Your task to perform on an android device: Go to ESPN.com Image 0: 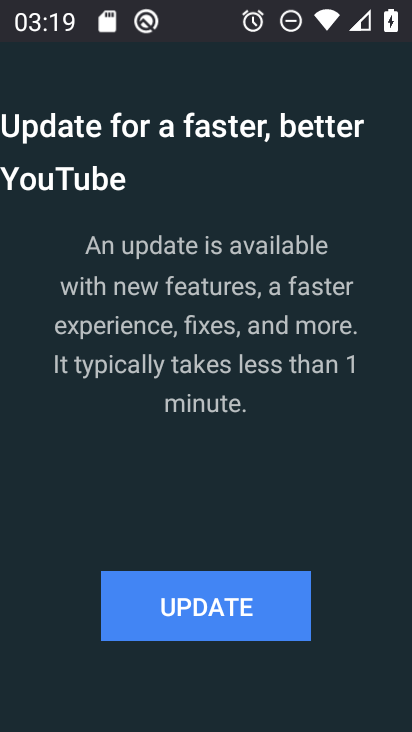
Step 0: click (215, 610)
Your task to perform on an android device: Go to ESPN.com Image 1: 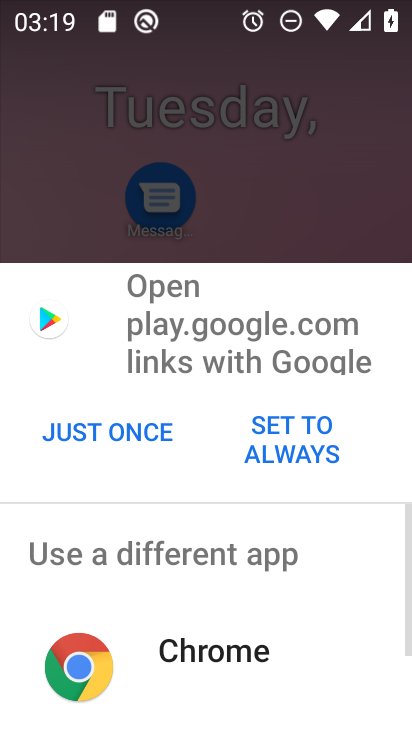
Step 1: click (321, 207)
Your task to perform on an android device: Go to ESPN.com Image 2: 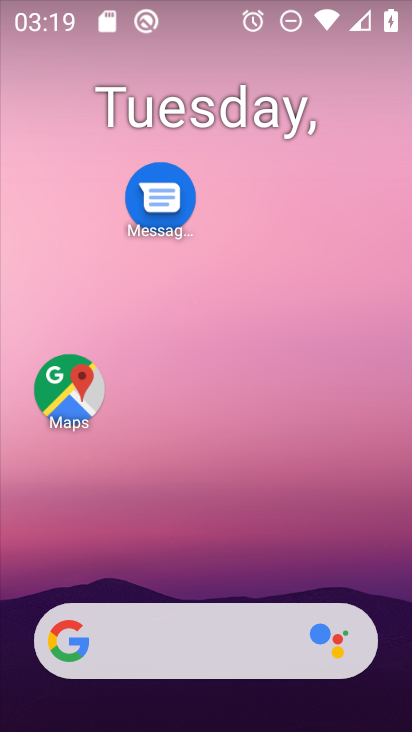
Step 2: drag from (203, 577) to (283, 113)
Your task to perform on an android device: Go to ESPN.com Image 3: 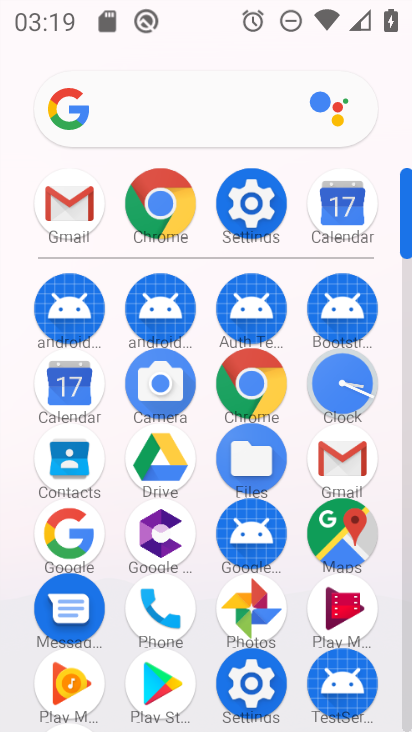
Step 3: click (244, 395)
Your task to perform on an android device: Go to ESPN.com Image 4: 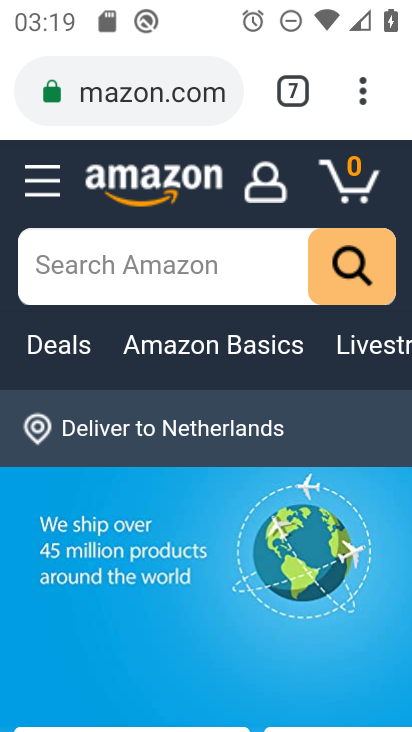
Step 4: click (180, 276)
Your task to perform on an android device: Go to ESPN.com Image 5: 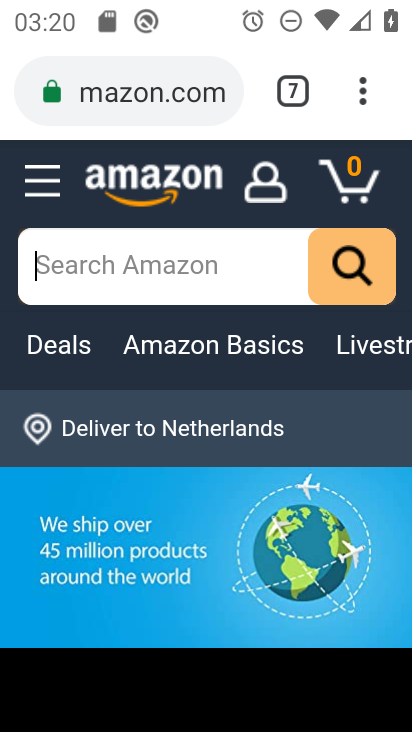
Step 5: type "ESPN.com"
Your task to perform on an android device: Go to ESPN.com Image 6: 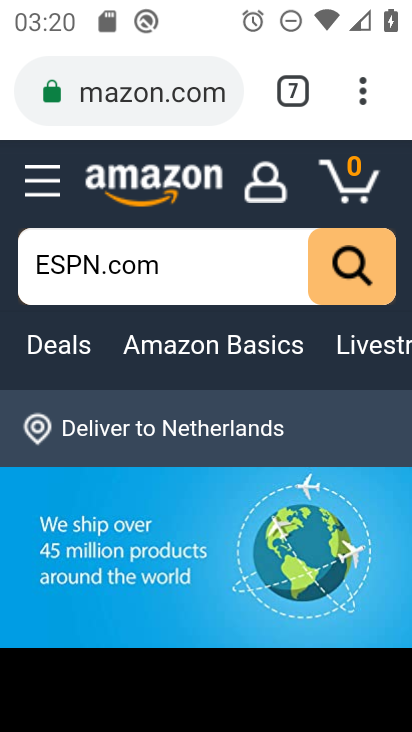
Step 6: click (296, 90)
Your task to perform on an android device: Go to ESPN.com Image 7: 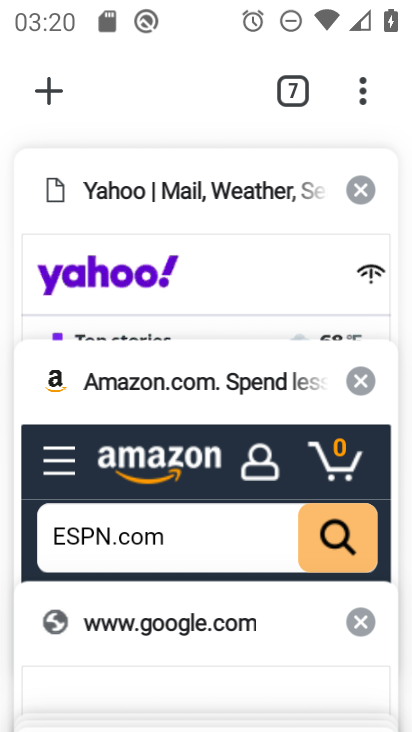
Step 7: click (50, 85)
Your task to perform on an android device: Go to ESPN.com Image 8: 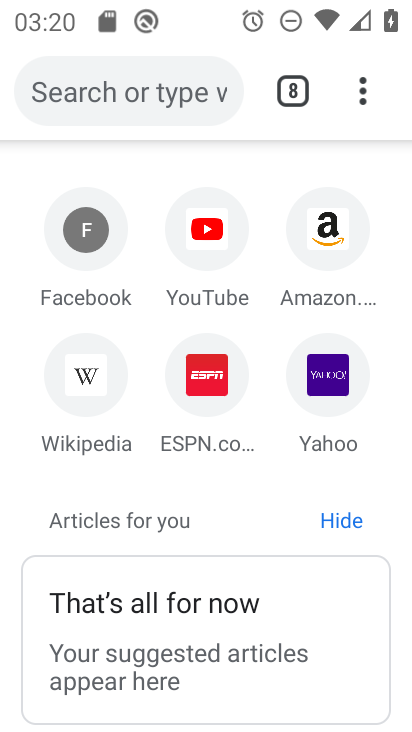
Step 8: click (121, 91)
Your task to perform on an android device: Go to ESPN.com Image 9: 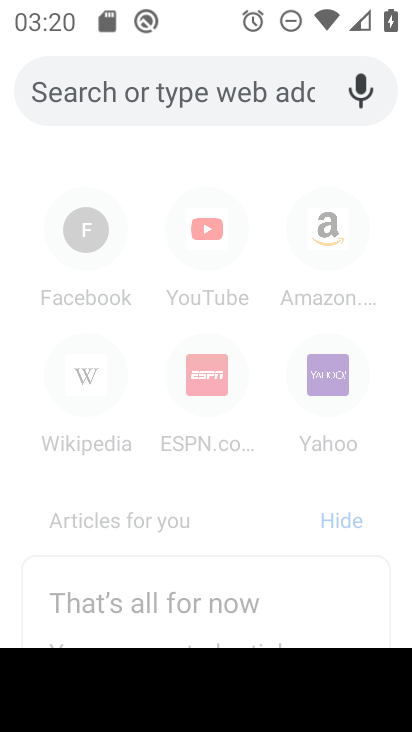
Step 9: type "ESPN.com"
Your task to perform on an android device: Go to ESPN.com Image 10: 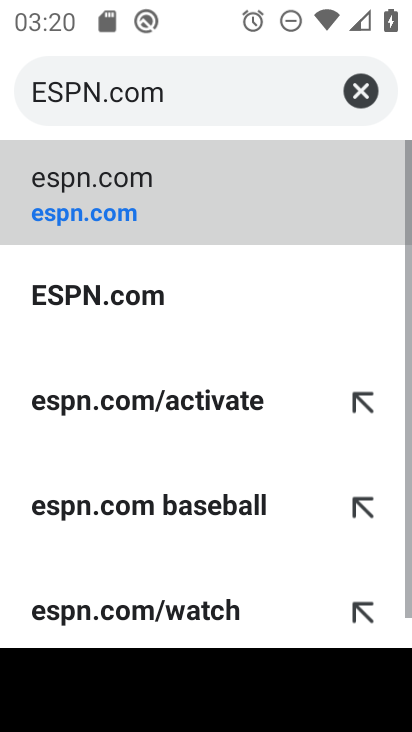
Step 10: click (221, 207)
Your task to perform on an android device: Go to ESPN.com Image 11: 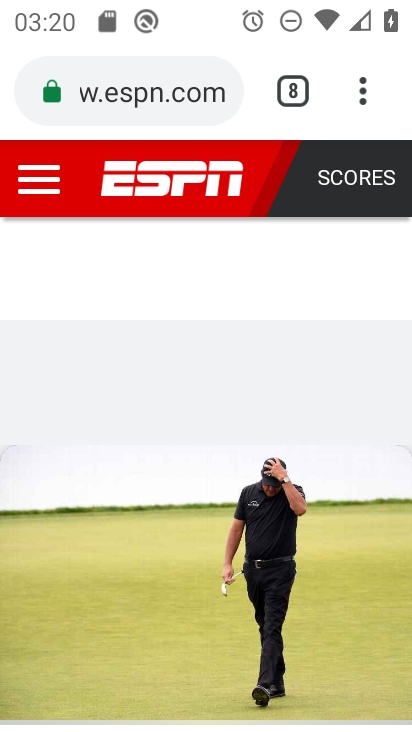
Step 11: task complete